Your task to perform on an android device: create a new album in the google photos Image 0: 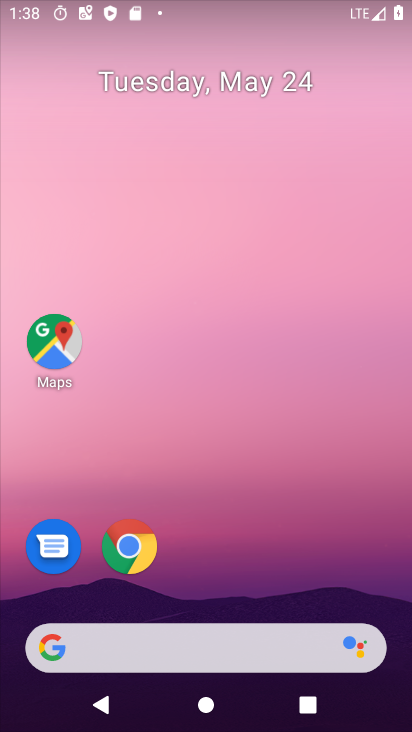
Step 0: drag from (216, 564) to (292, 30)
Your task to perform on an android device: create a new album in the google photos Image 1: 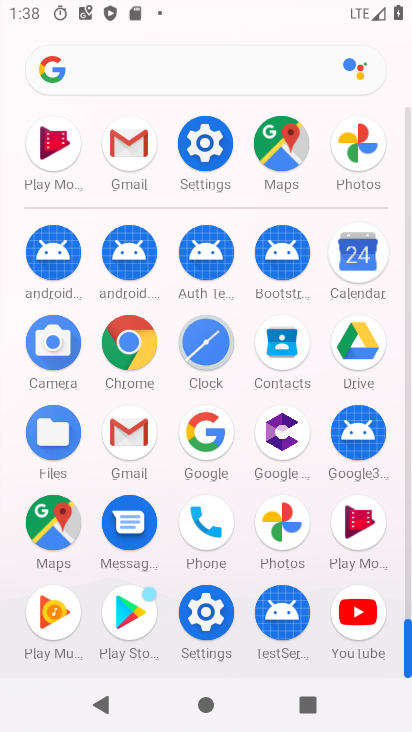
Step 1: click (279, 530)
Your task to perform on an android device: create a new album in the google photos Image 2: 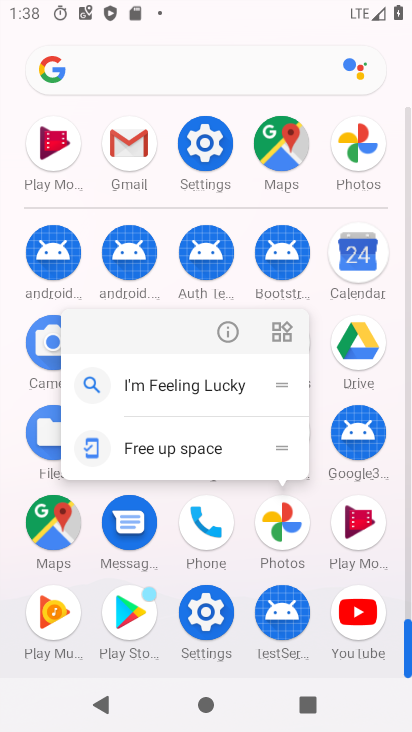
Step 2: click (228, 336)
Your task to perform on an android device: create a new album in the google photos Image 3: 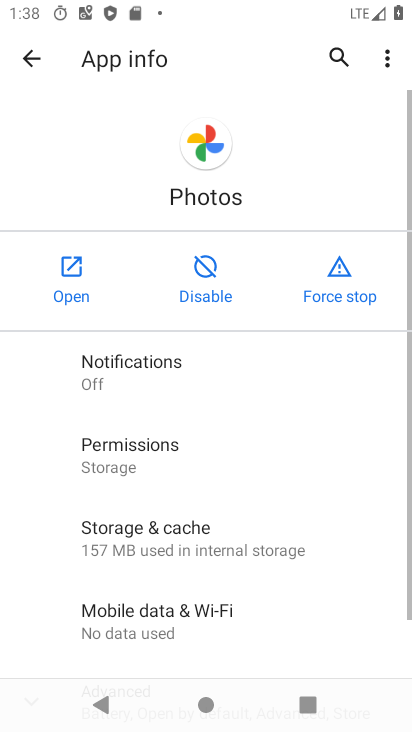
Step 3: click (59, 270)
Your task to perform on an android device: create a new album in the google photos Image 4: 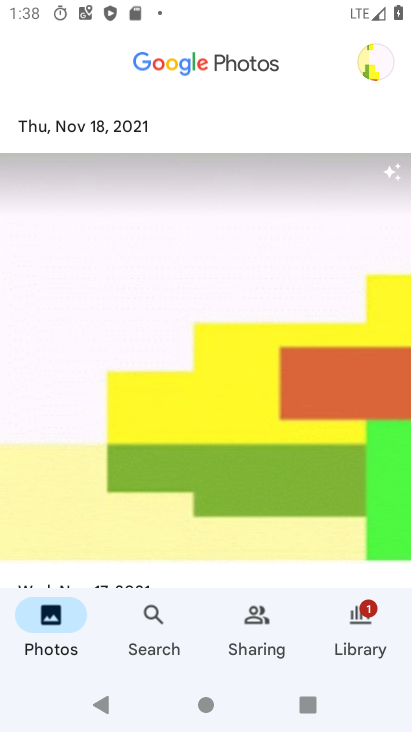
Step 4: click (144, 622)
Your task to perform on an android device: create a new album in the google photos Image 5: 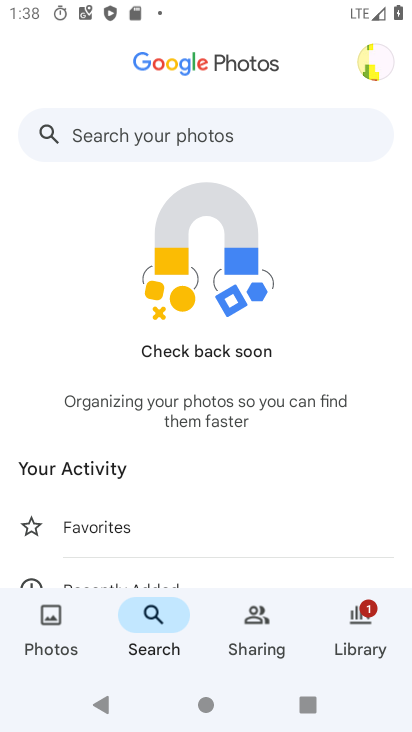
Step 5: click (344, 622)
Your task to perform on an android device: create a new album in the google photos Image 6: 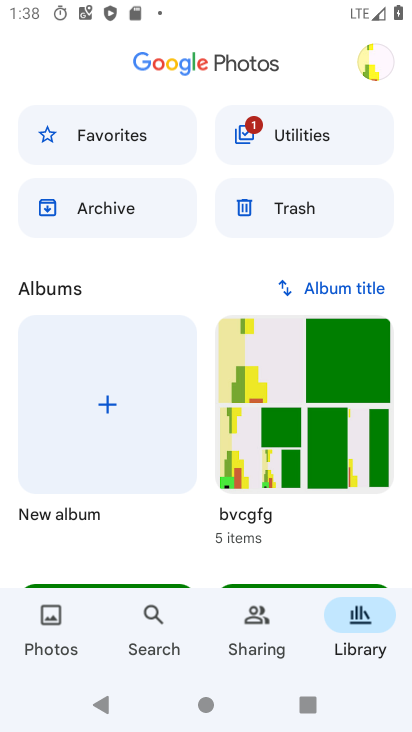
Step 6: click (102, 403)
Your task to perform on an android device: create a new album in the google photos Image 7: 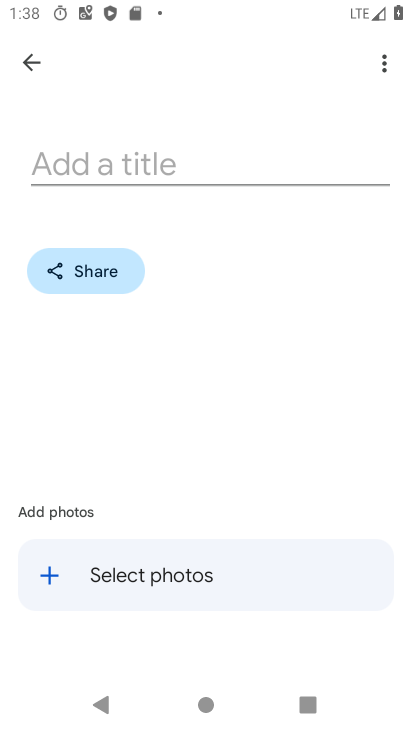
Step 7: click (200, 169)
Your task to perform on an android device: create a new album in the google photos Image 8: 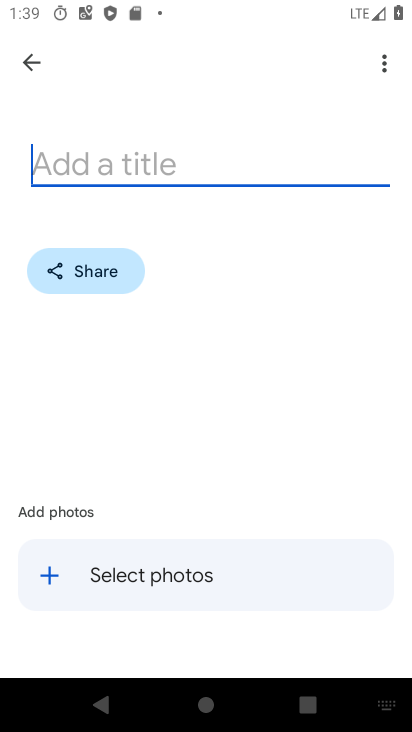
Step 8: type "k"
Your task to perform on an android device: create a new album in the google photos Image 9: 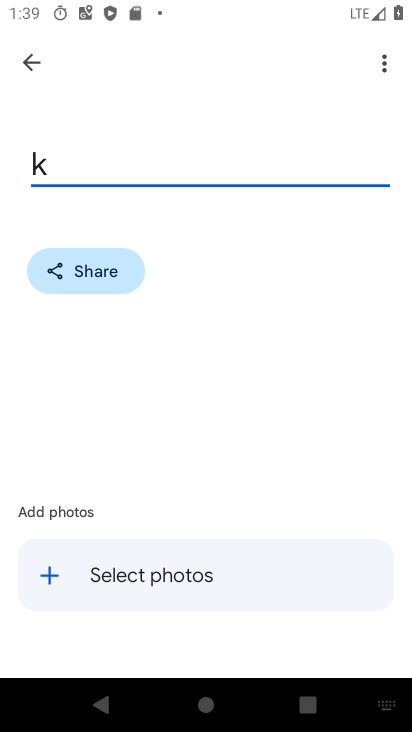
Step 9: click (44, 574)
Your task to perform on an android device: create a new album in the google photos Image 10: 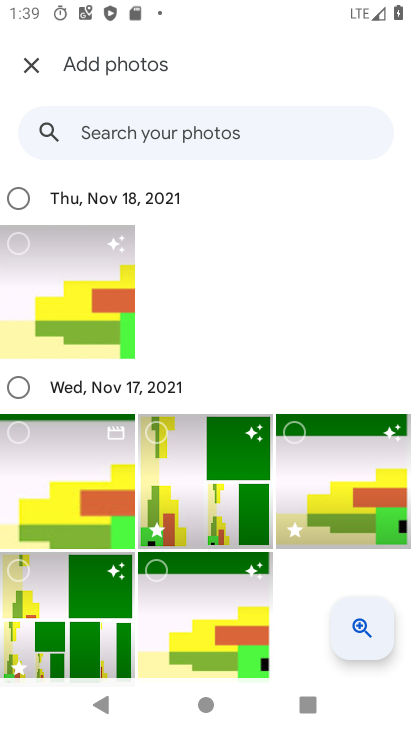
Step 10: click (79, 278)
Your task to perform on an android device: create a new album in the google photos Image 11: 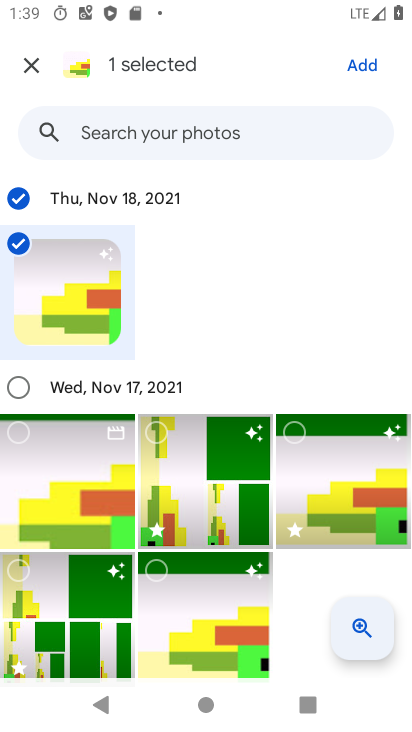
Step 11: click (367, 67)
Your task to perform on an android device: create a new album in the google photos Image 12: 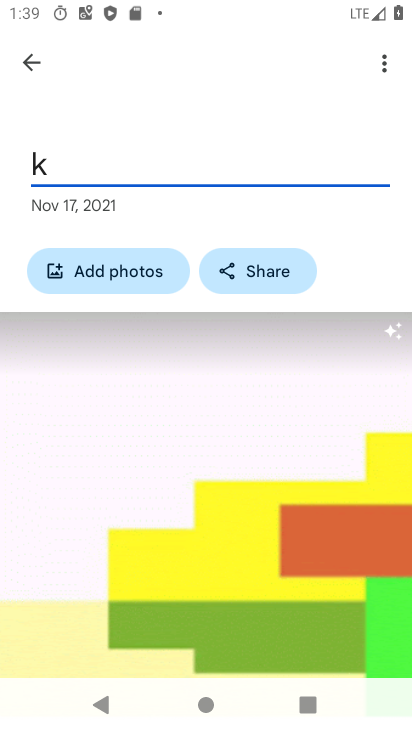
Step 12: task complete